Your task to perform on an android device: check android version Image 0: 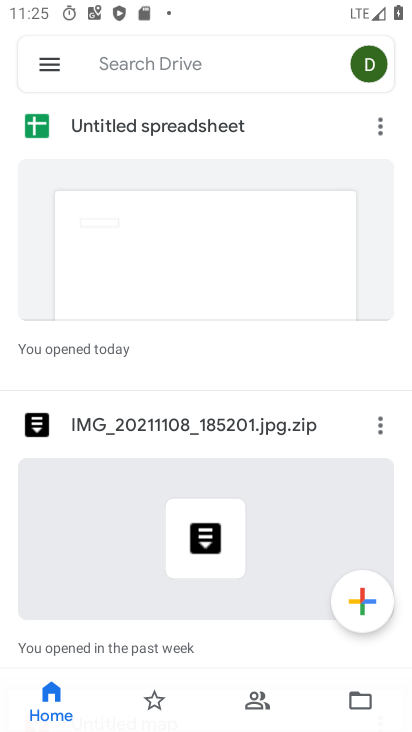
Step 0: press home button
Your task to perform on an android device: check android version Image 1: 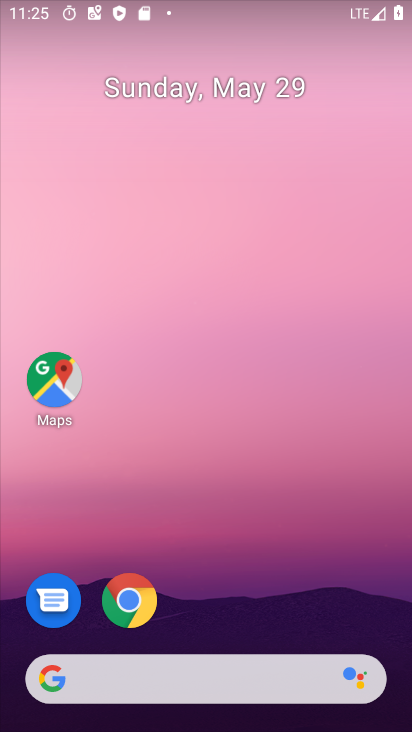
Step 1: drag from (249, 591) to (271, 5)
Your task to perform on an android device: check android version Image 2: 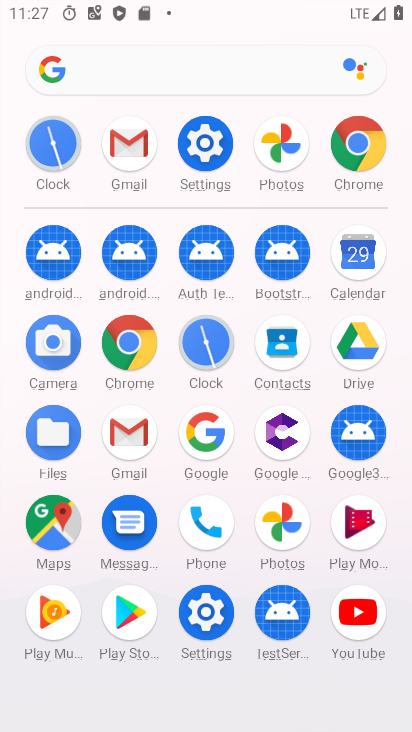
Step 2: click (207, 618)
Your task to perform on an android device: check android version Image 3: 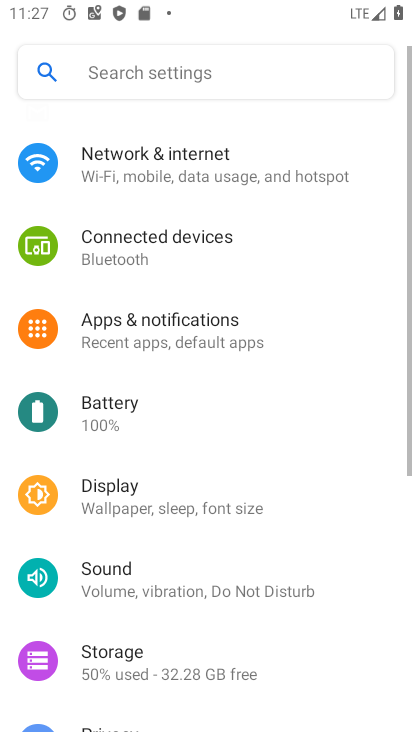
Step 3: click (217, 621)
Your task to perform on an android device: check android version Image 4: 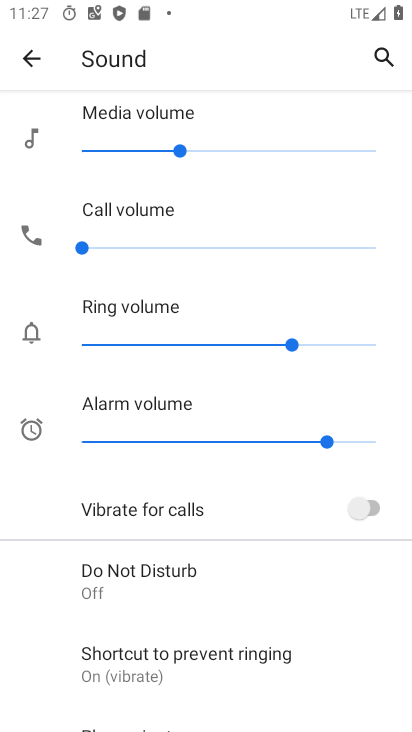
Step 4: click (33, 73)
Your task to perform on an android device: check android version Image 5: 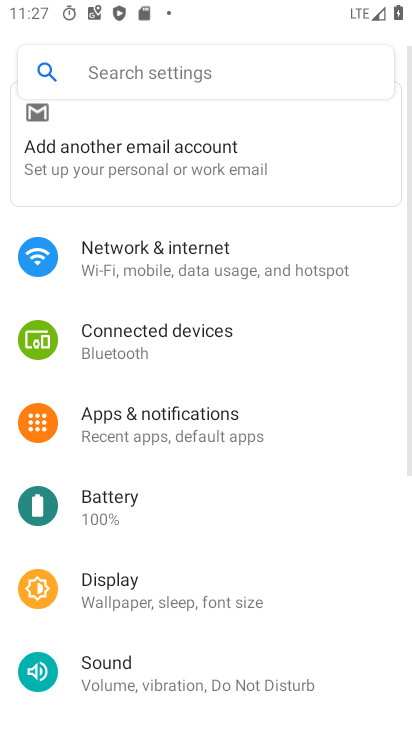
Step 5: drag from (146, 574) to (278, 52)
Your task to perform on an android device: check android version Image 6: 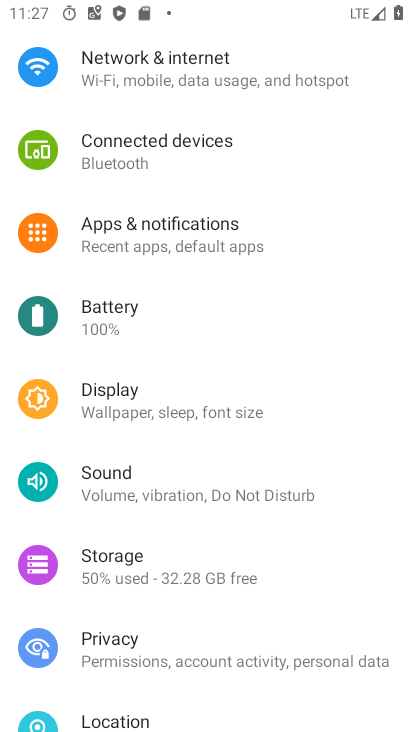
Step 6: drag from (254, 641) to (240, 49)
Your task to perform on an android device: check android version Image 7: 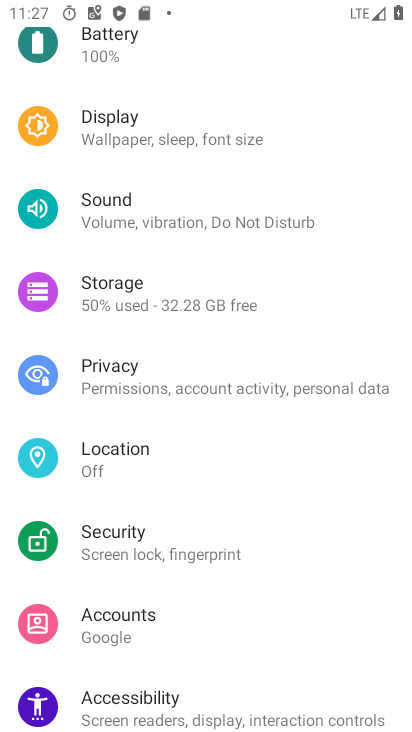
Step 7: drag from (234, 597) to (291, 118)
Your task to perform on an android device: check android version Image 8: 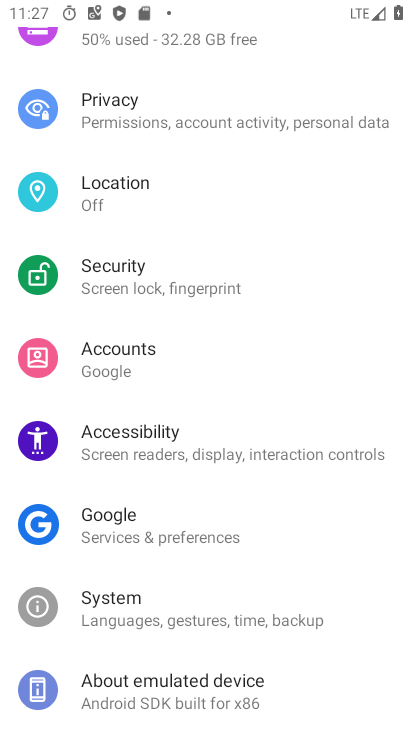
Step 8: drag from (198, 536) to (204, 197)
Your task to perform on an android device: check android version Image 9: 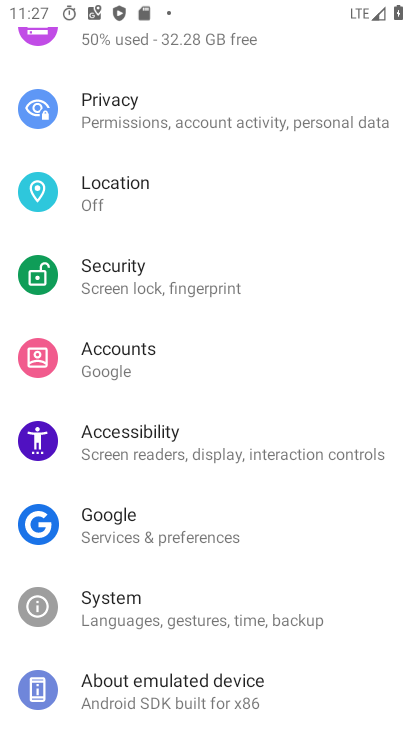
Step 9: click (114, 619)
Your task to perform on an android device: check android version Image 10: 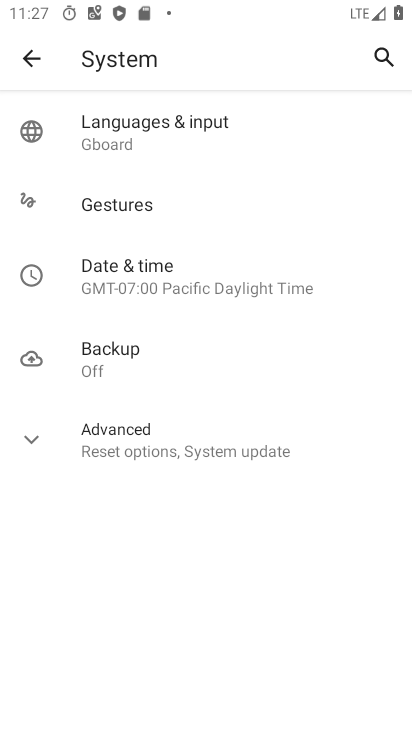
Step 10: click (33, 61)
Your task to perform on an android device: check android version Image 11: 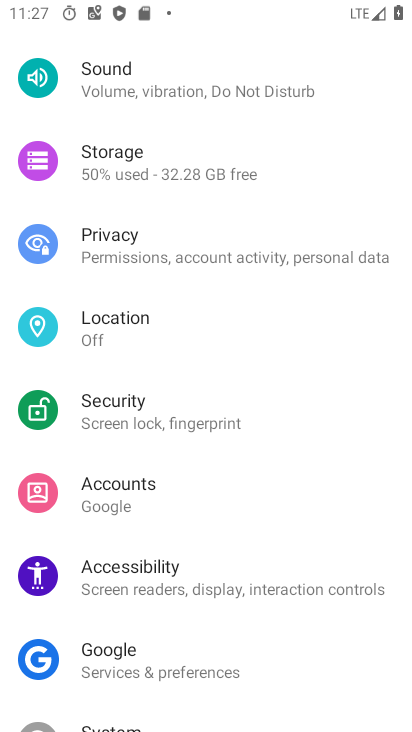
Step 11: drag from (163, 711) to (144, 287)
Your task to perform on an android device: check android version Image 12: 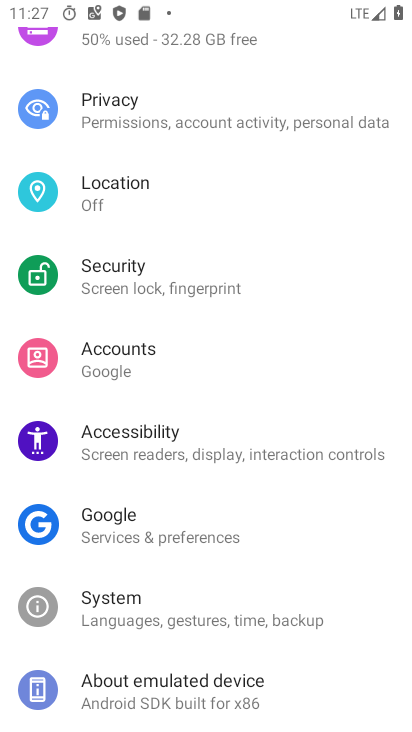
Step 12: click (99, 705)
Your task to perform on an android device: check android version Image 13: 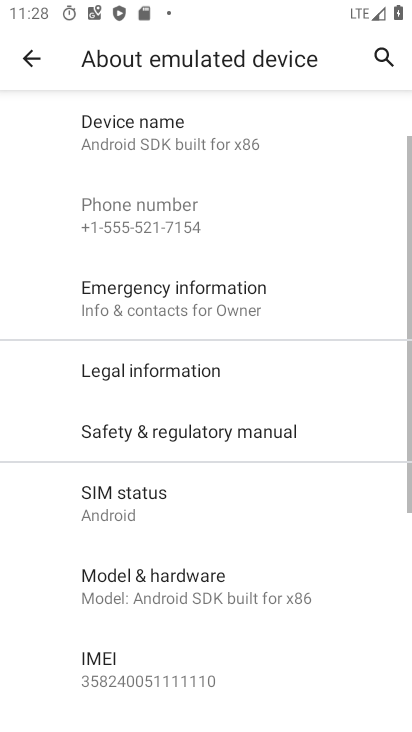
Step 13: drag from (53, 562) to (69, 303)
Your task to perform on an android device: check android version Image 14: 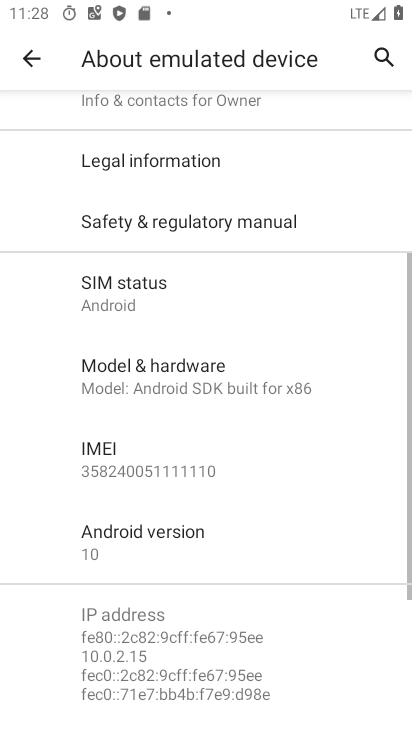
Step 14: click (153, 526)
Your task to perform on an android device: check android version Image 15: 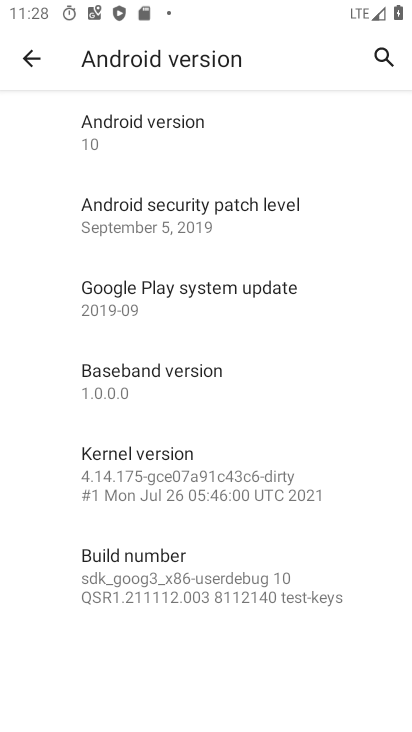
Step 15: task complete